Your task to perform on an android device: toggle pop-ups in chrome Image 0: 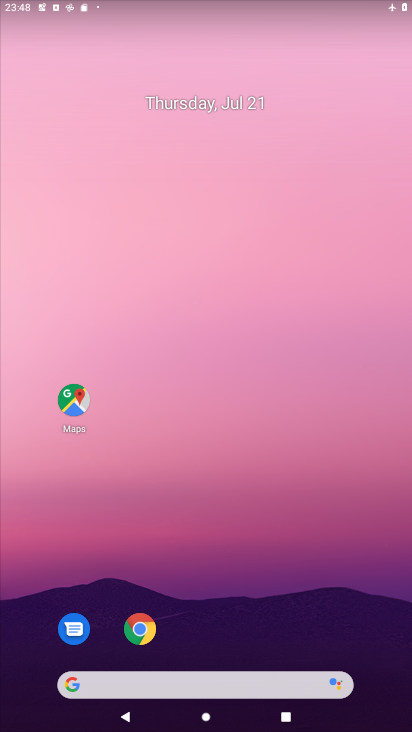
Step 0: drag from (186, 667) to (261, 36)
Your task to perform on an android device: toggle pop-ups in chrome Image 1: 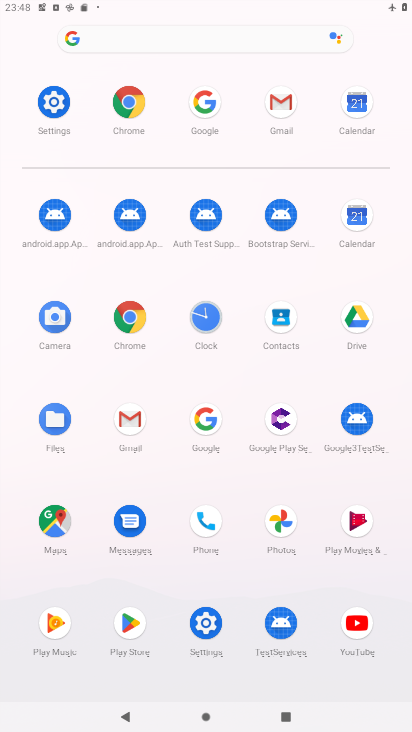
Step 1: click (126, 314)
Your task to perform on an android device: toggle pop-ups in chrome Image 2: 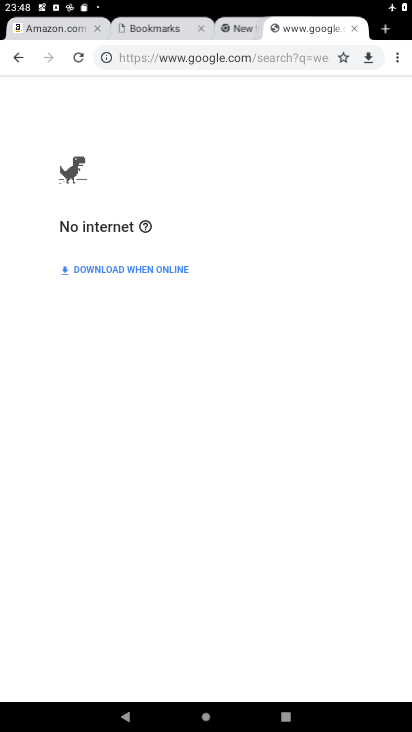
Step 2: click (396, 68)
Your task to perform on an android device: toggle pop-ups in chrome Image 3: 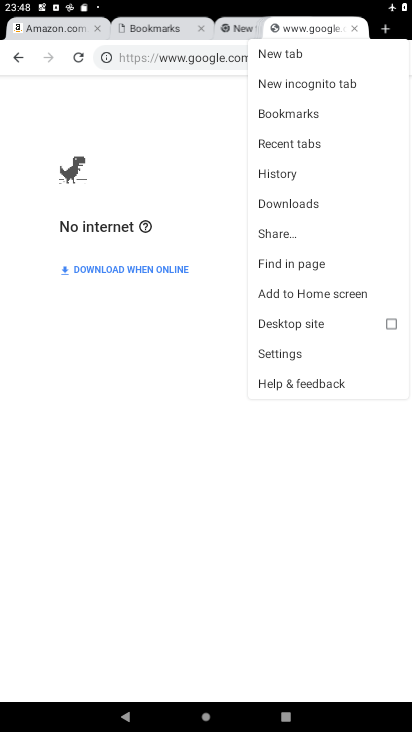
Step 3: click (309, 361)
Your task to perform on an android device: toggle pop-ups in chrome Image 4: 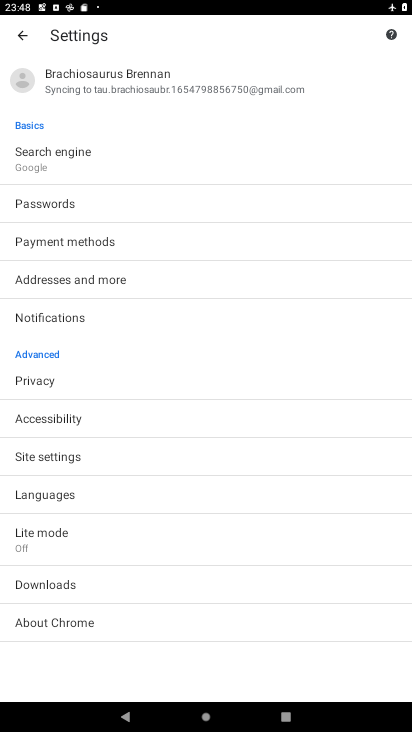
Step 4: click (80, 457)
Your task to perform on an android device: toggle pop-ups in chrome Image 5: 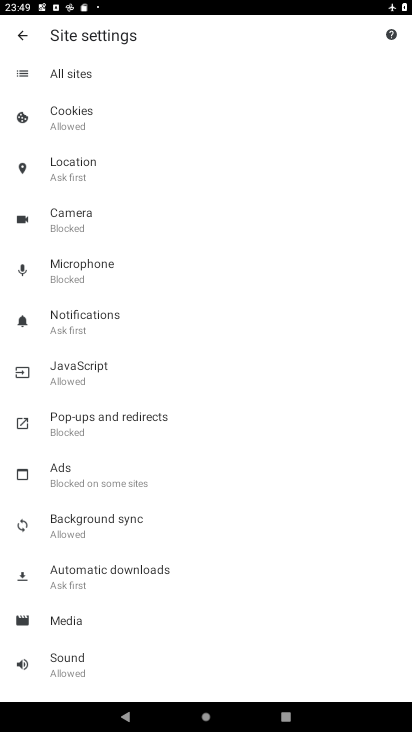
Step 5: click (106, 422)
Your task to perform on an android device: toggle pop-ups in chrome Image 6: 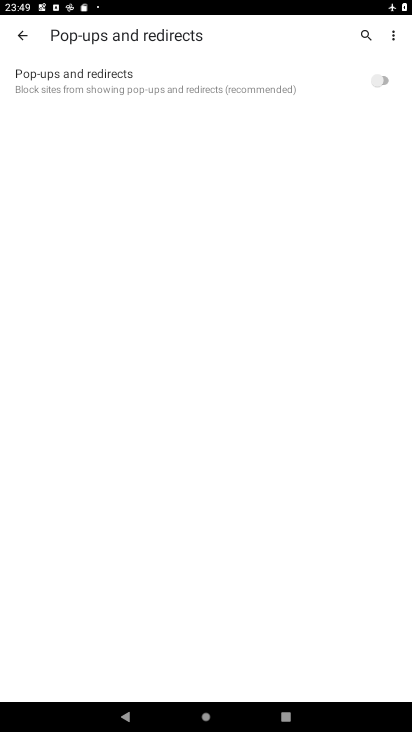
Step 6: click (378, 69)
Your task to perform on an android device: toggle pop-ups in chrome Image 7: 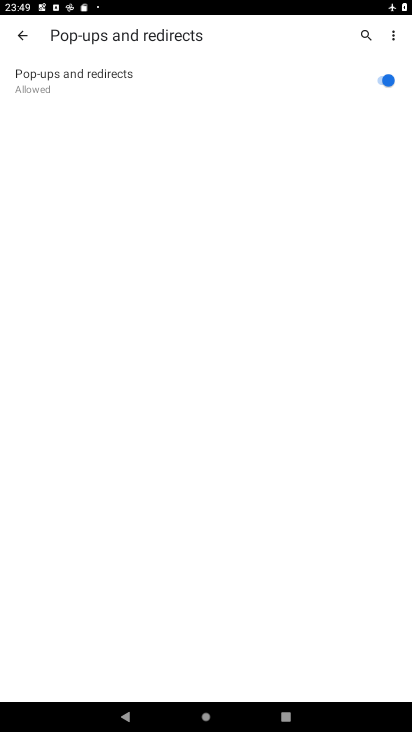
Step 7: task complete